Your task to perform on an android device: Search for "jbl flip 4" on target, select the first entry, and add it to the cart. Image 0: 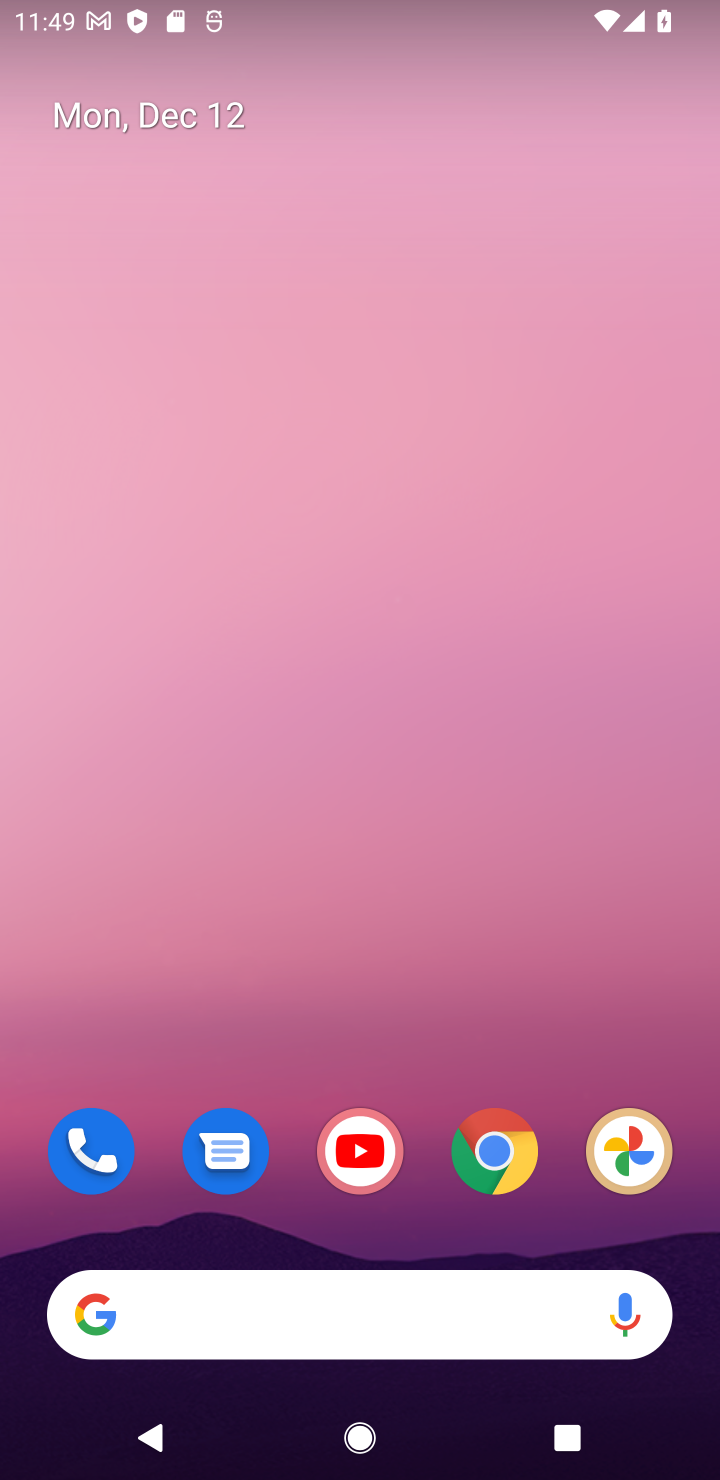
Step 0: drag from (255, 1249) to (378, 294)
Your task to perform on an android device: Search for "jbl flip 4" on target, select the first entry, and add it to the cart. Image 1: 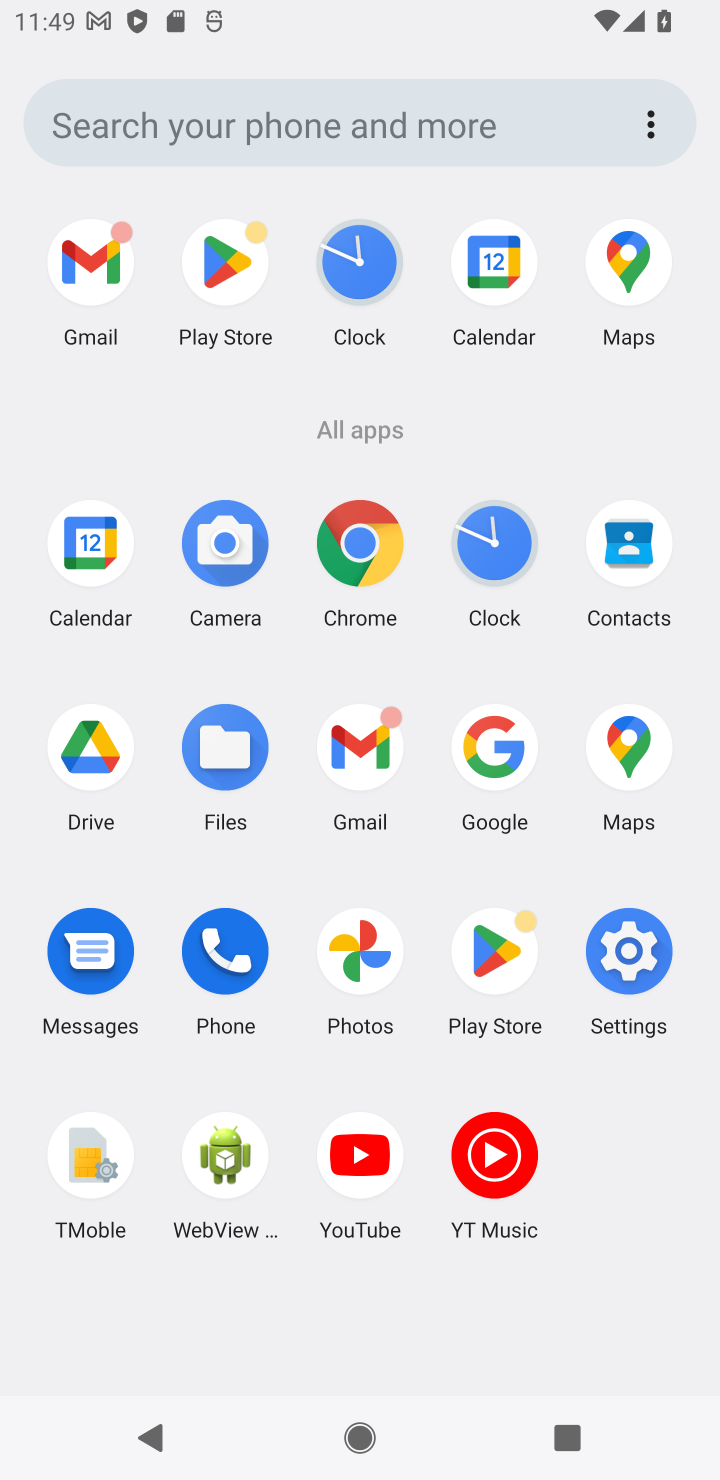
Step 1: click (496, 744)
Your task to perform on an android device: Search for "jbl flip 4" on target, select the first entry, and add it to the cart. Image 2: 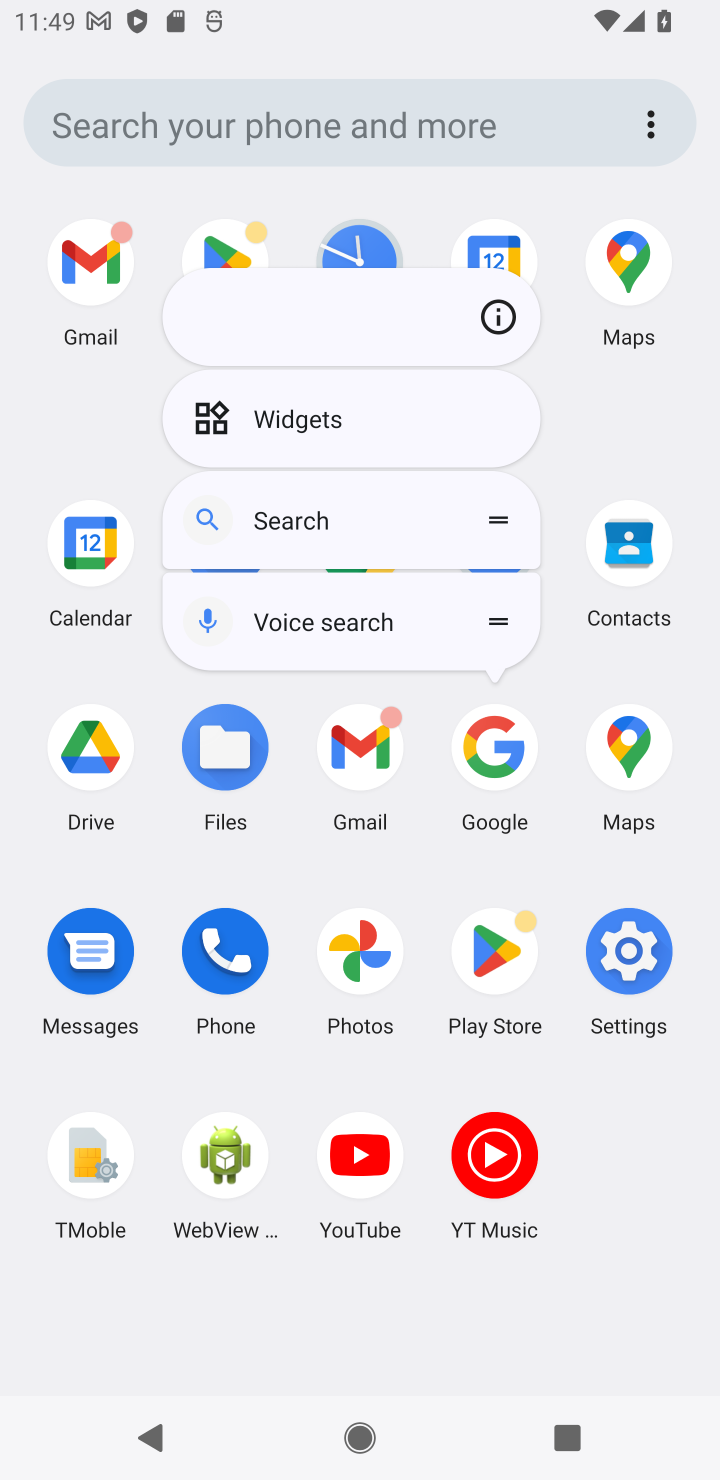
Step 2: click (471, 747)
Your task to perform on an android device: Search for "jbl flip 4" on target, select the first entry, and add it to the cart. Image 3: 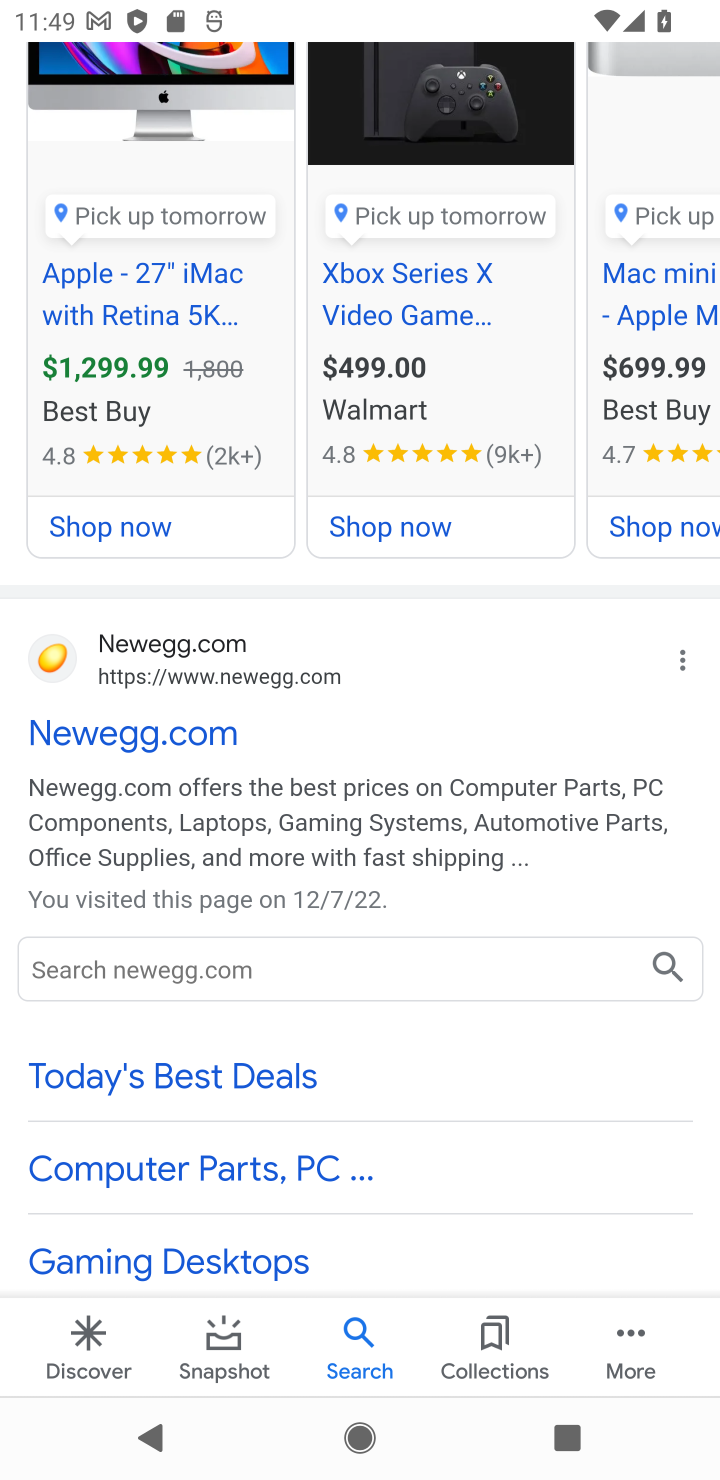
Step 3: press home button
Your task to perform on an android device: Search for "jbl flip 4" on target, select the first entry, and add it to the cart. Image 4: 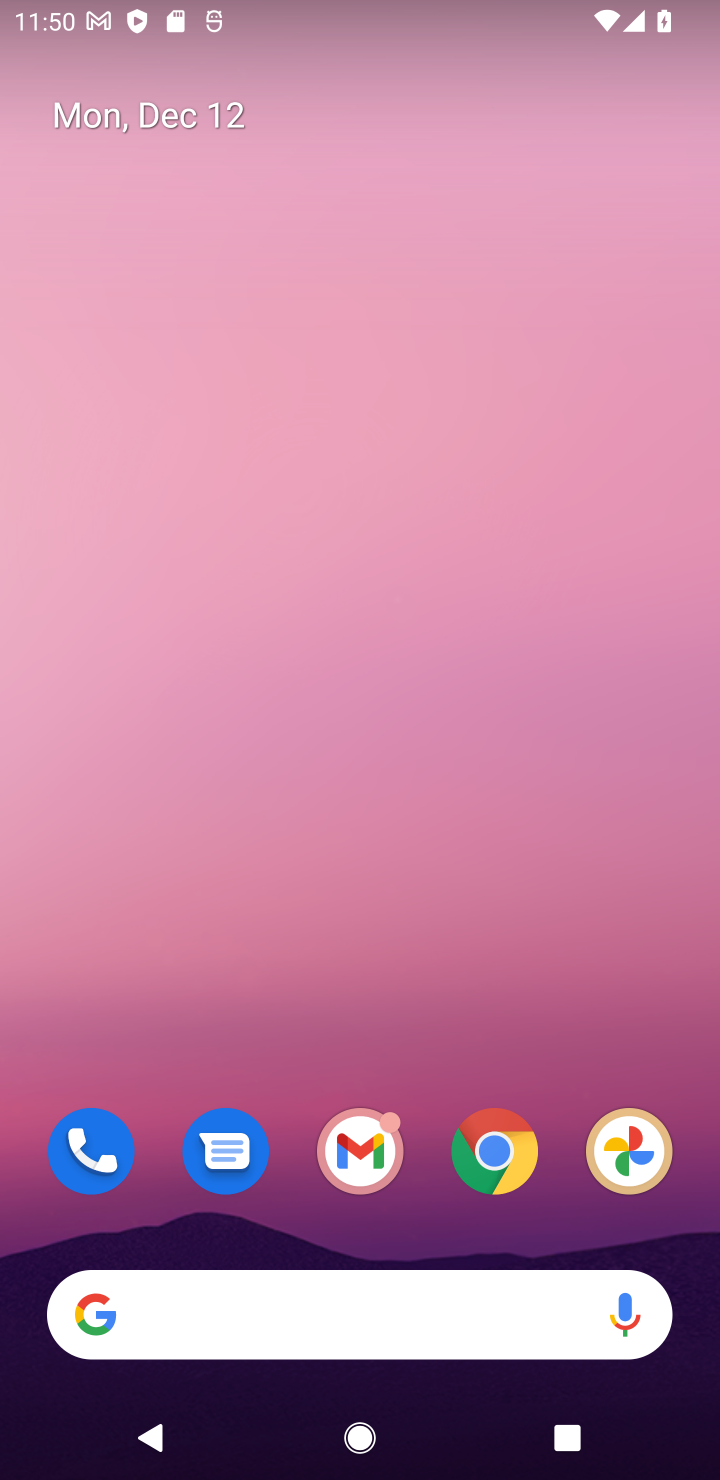
Step 4: drag from (400, 1258) to (401, 455)
Your task to perform on an android device: Search for "jbl flip 4" on target, select the first entry, and add it to the cart. Image 5: 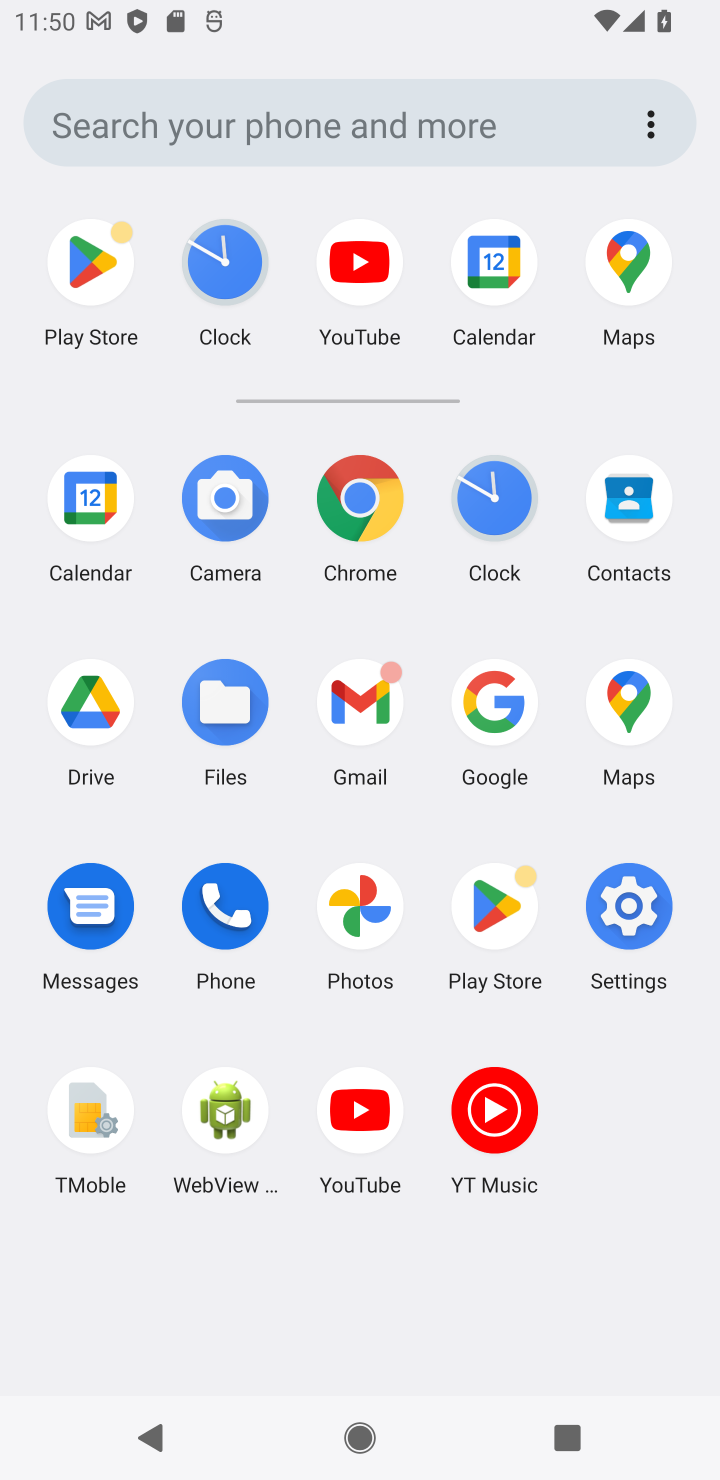
Step 5: click (493, 723)
Your task to perform on an android device: Search for "jbl flip 4" on target, select the first entry, and add it to the cart. Image 6: 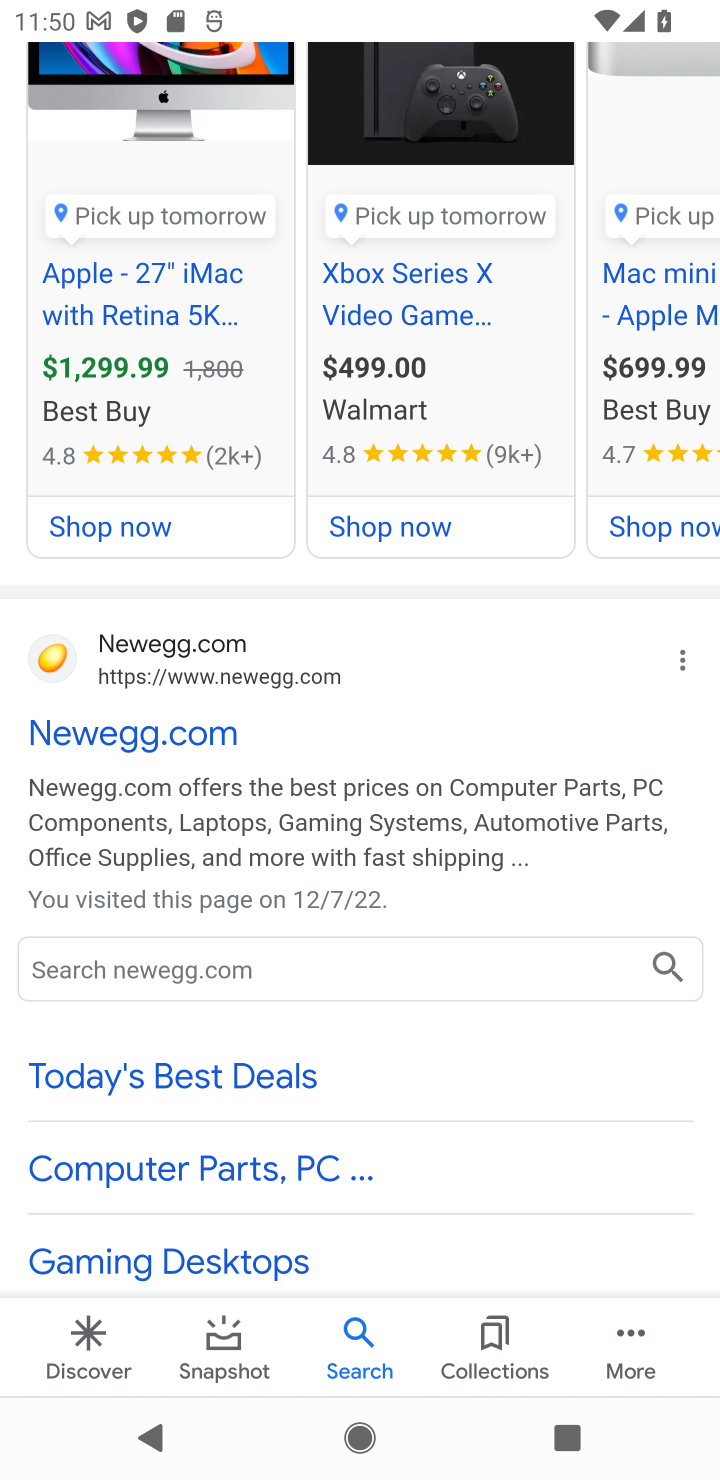
Step 6: drag from (293, 267) to (298, 1073)
Your task to perform on an android device: Search for "jbl flip 4" on target, select the first entry, and add it to the cart. Image 7: 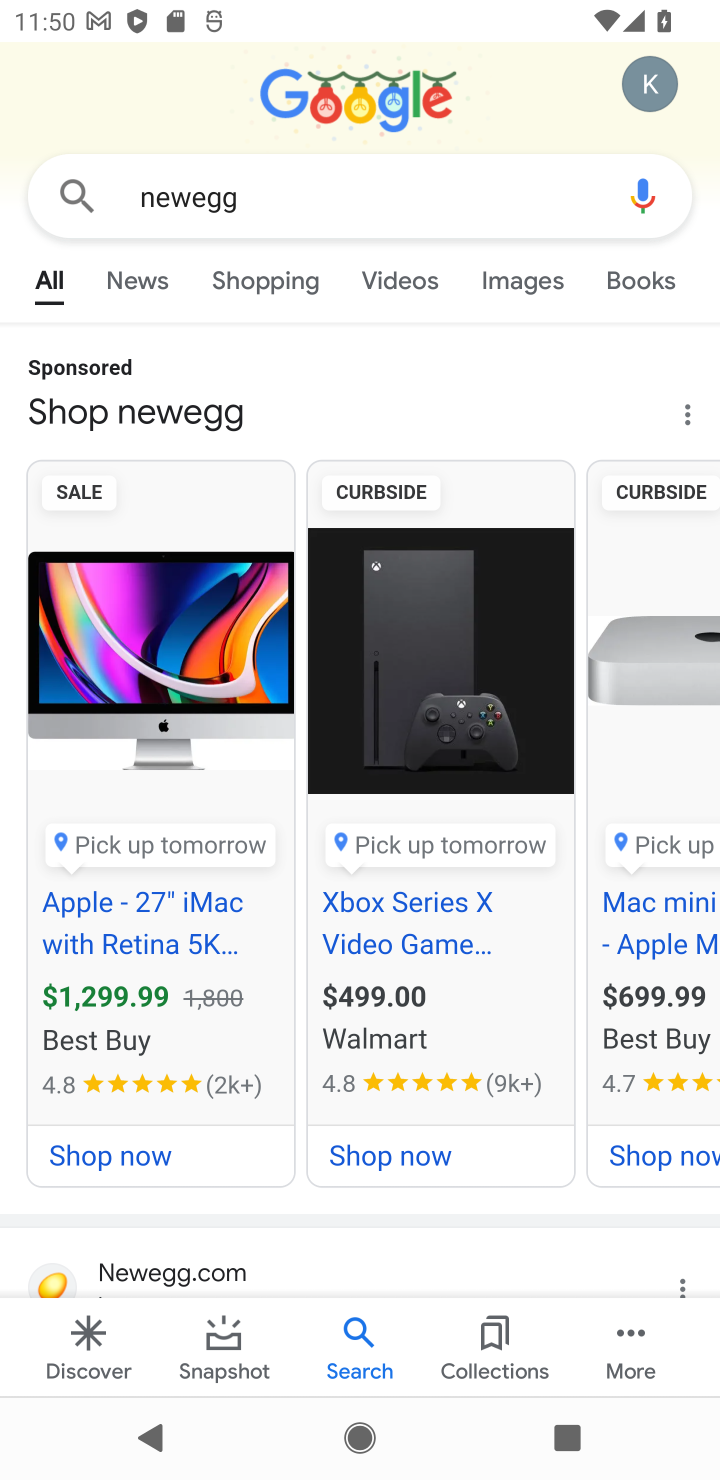
Step 7: click (222, 196)
Your task to perform on an android device: Search for "jbl flip 4" on target, select the first entry, and add it to the cart. Image 8: 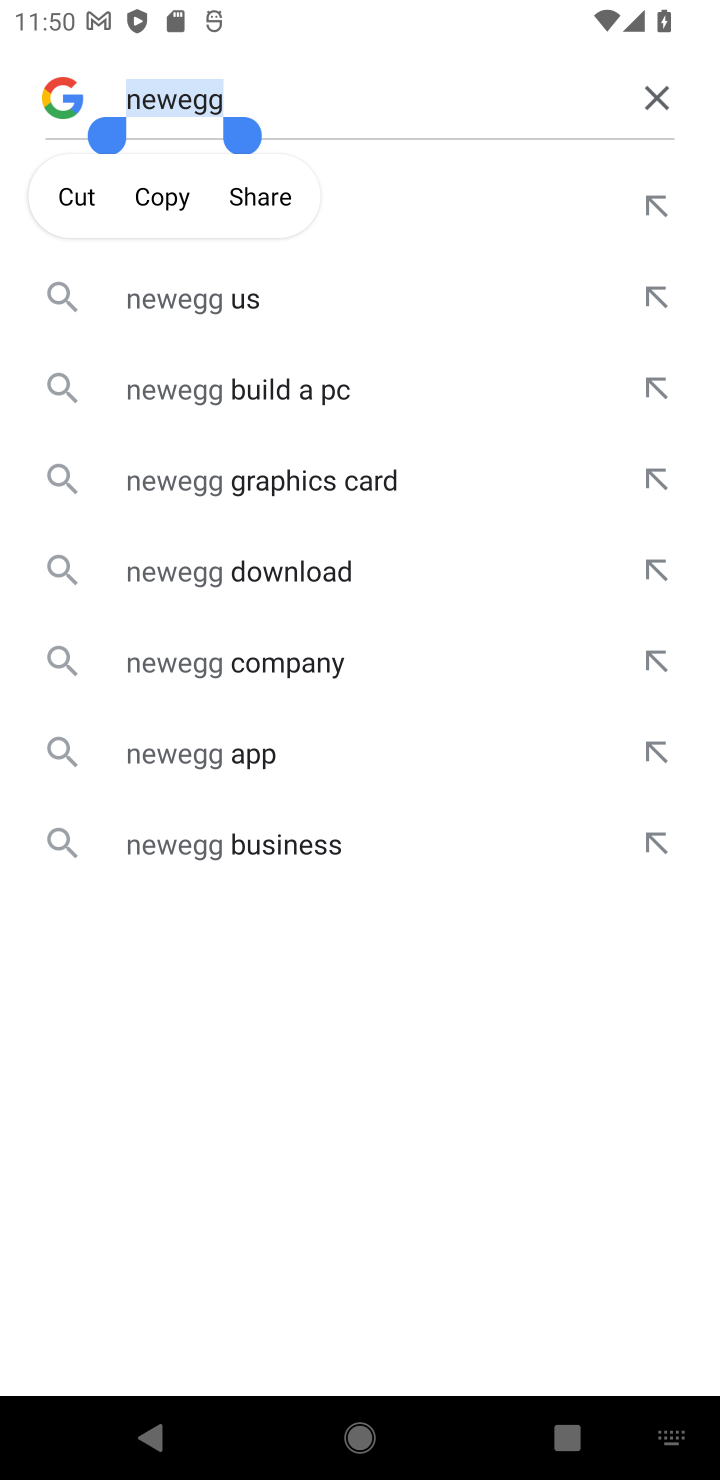
Step 8: click (661, 94)
Your task to perform on an android device: Search for "jbl flip 4" on target, select the first entry, and add it to the cart. Image 9: 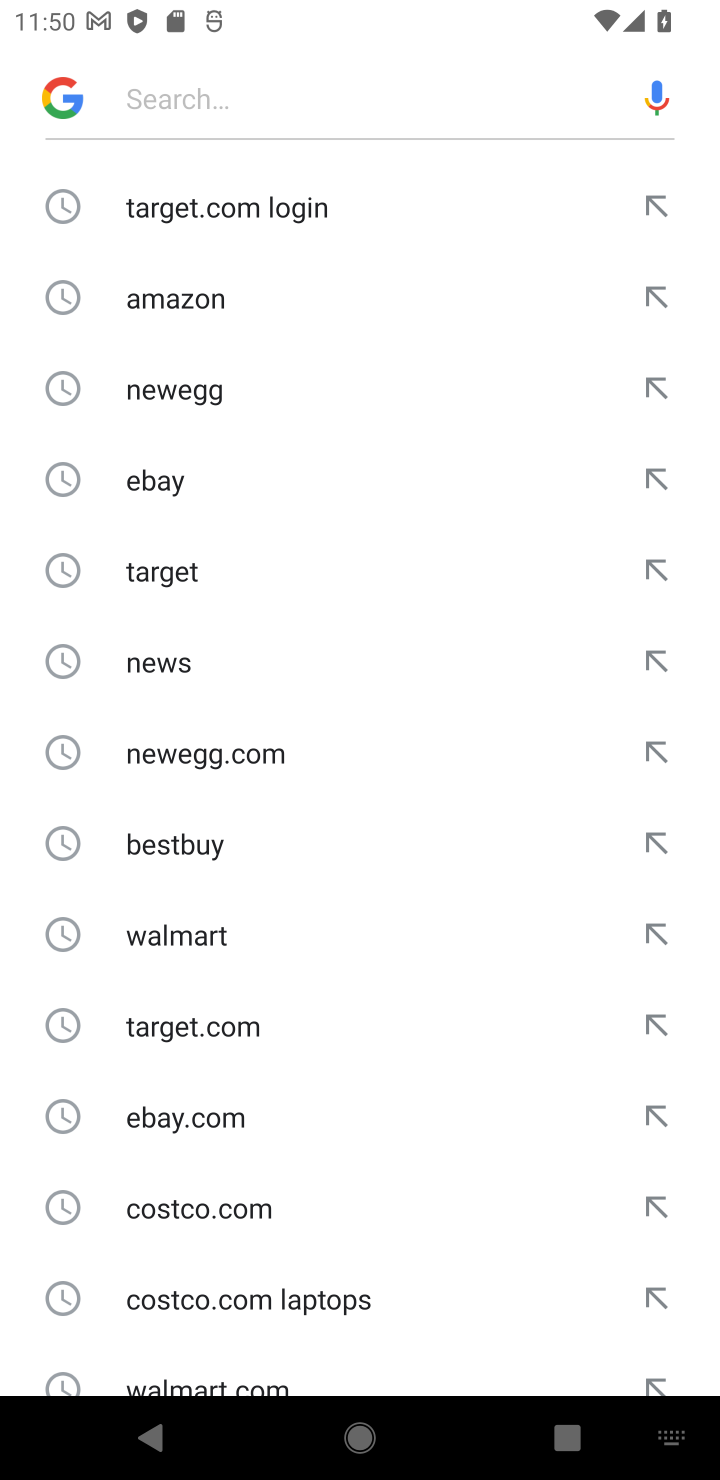
Step 9: click (197, 1028)
Your task to perform on an android device: Search for "jbl flip 4" on target, select the first entry, and add it to the cart. Image 10: 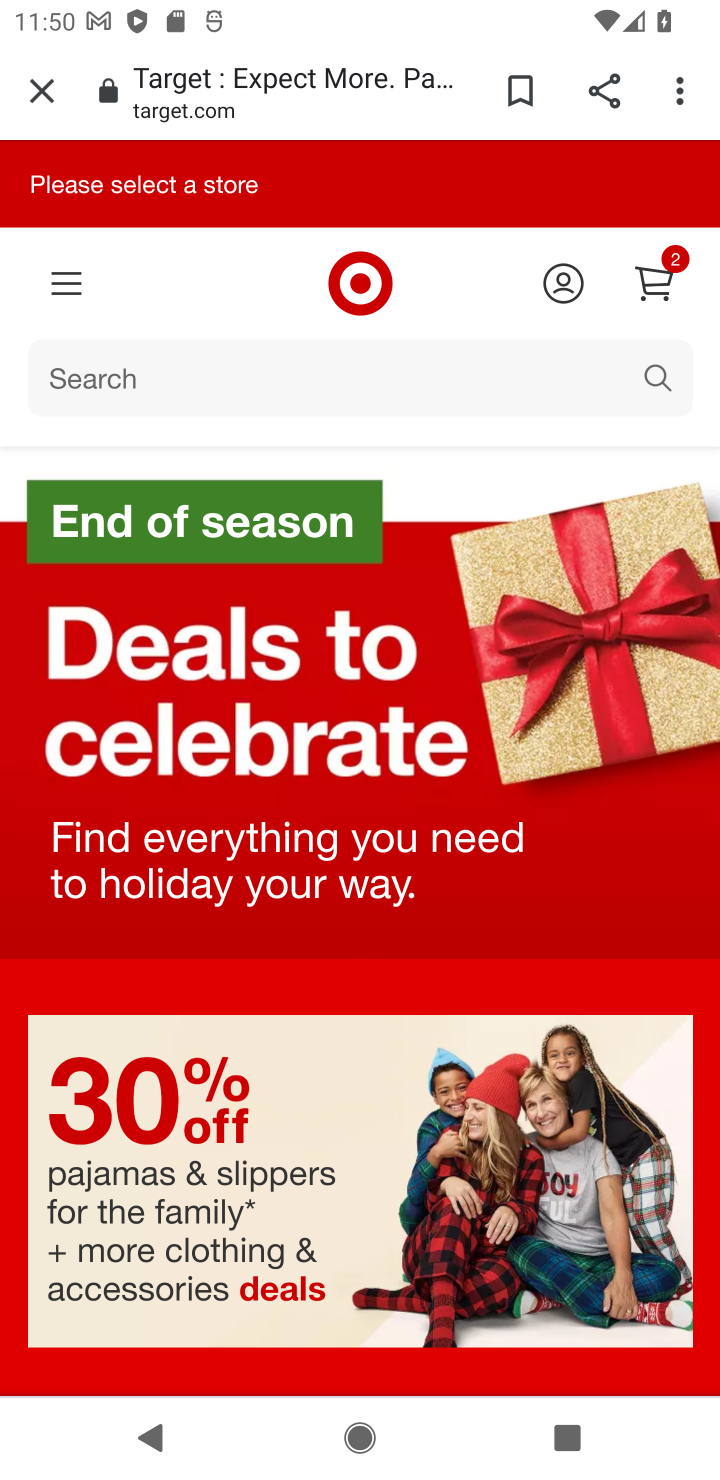
Step 10: click (206, 385)
Your task to perform on an android device: Search for "jbl flip 4" on target, select the first entry, and add it to the cart. Image 11: 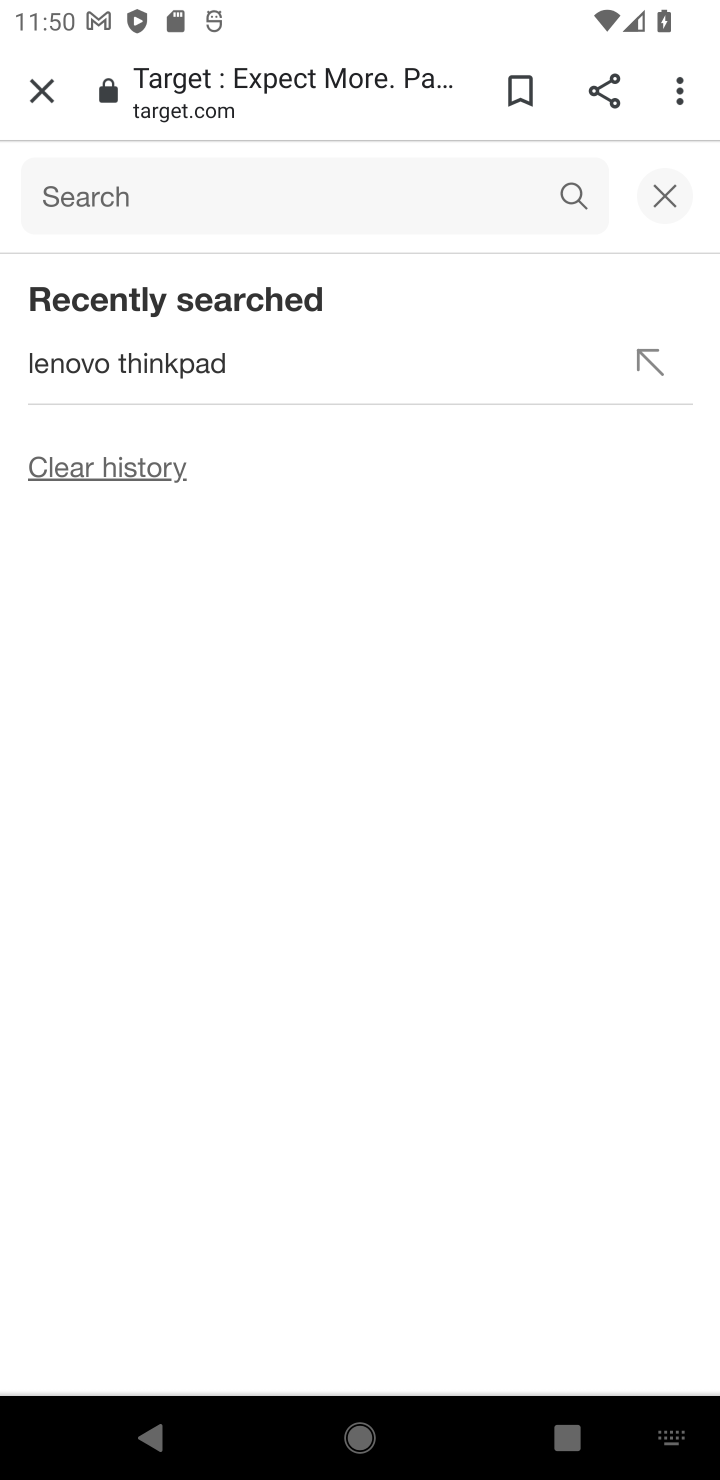
Step 11: type "jbl flip 4"
Your task to perform on an android device: Search for "jbl flip 4" on target, select the first entry, and add it to the cart. Image 12: 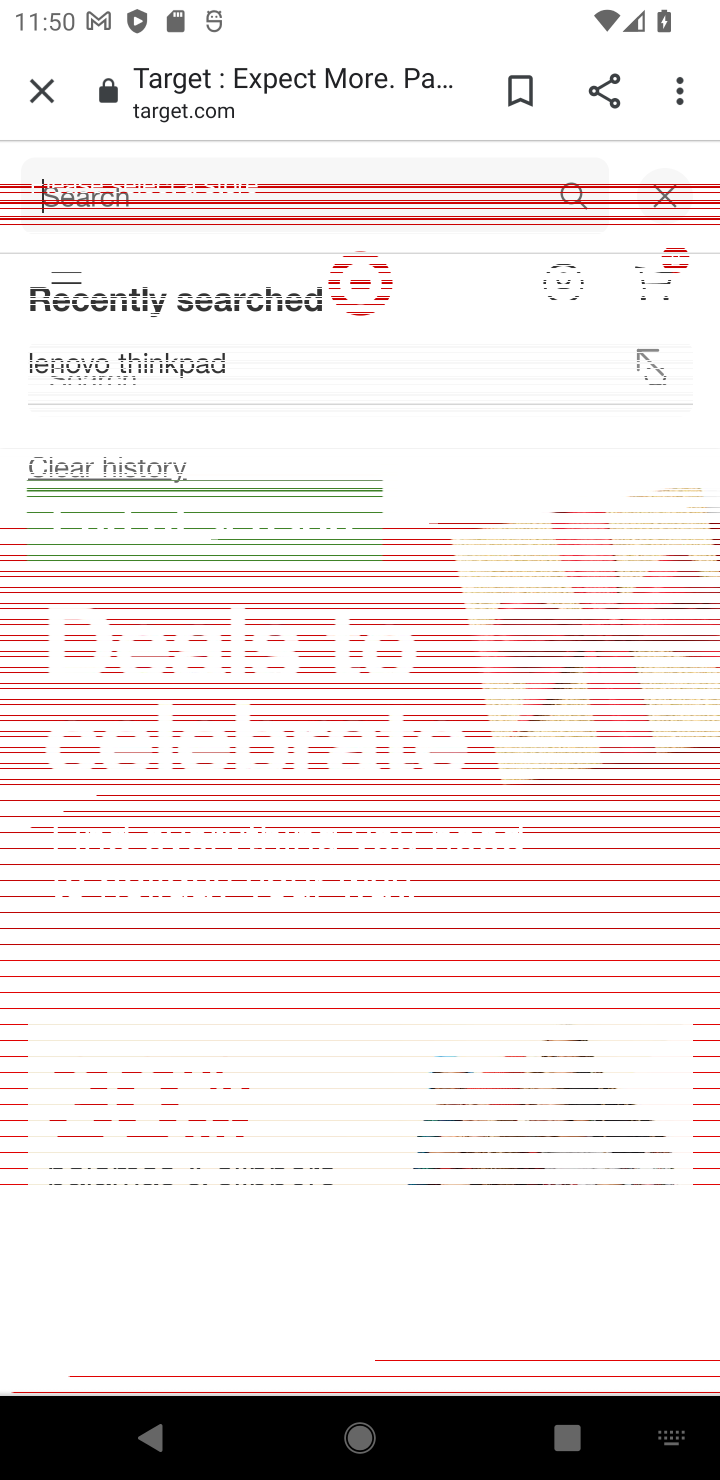
Step 12: click (573, 195)
Your task to perform on an android device: Search for "jbl flip 4" on target, select the first entry, and add it to the cart. Image 13: 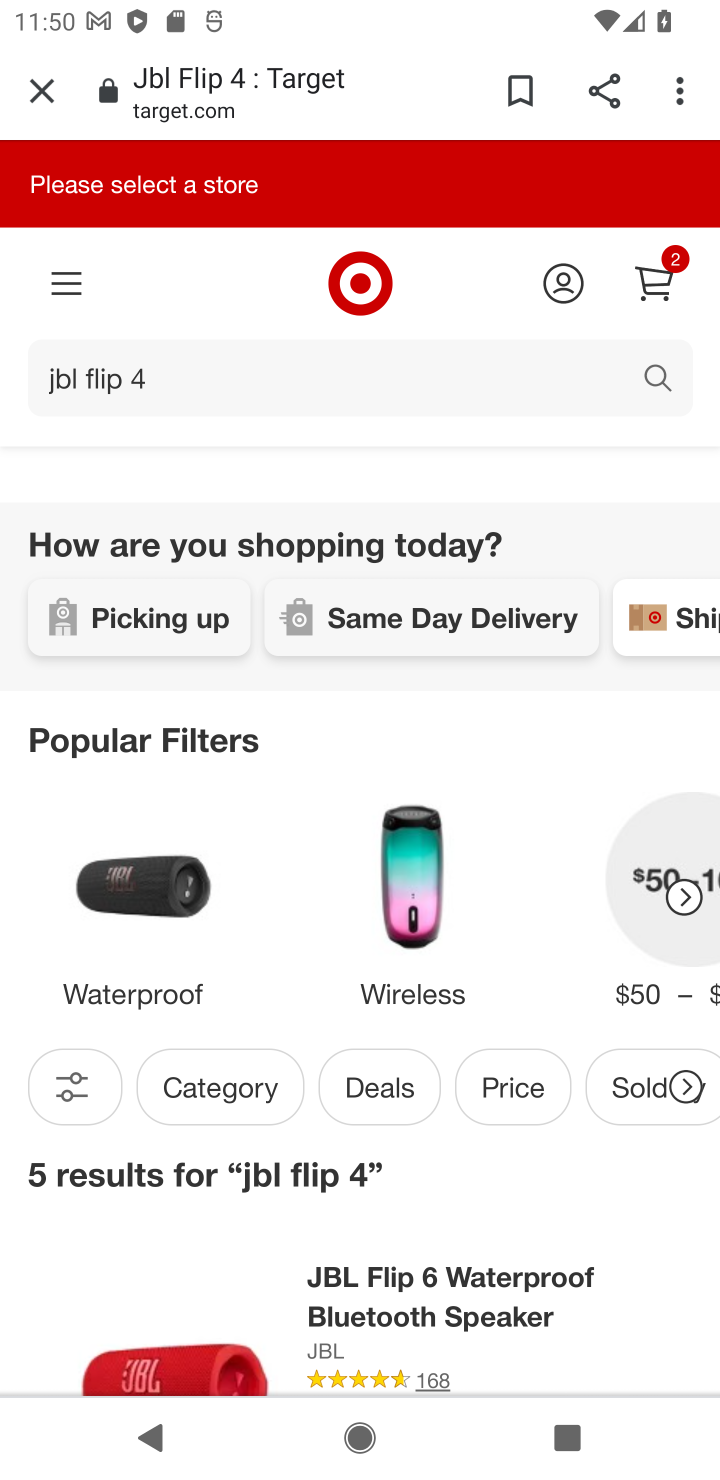
Step 13: drag from (370, 1188) to (399, 576)
Your task to perform on an android device: Search for "jbl flip 4" on target, select the first entry, and add it to the cart. Image 14: 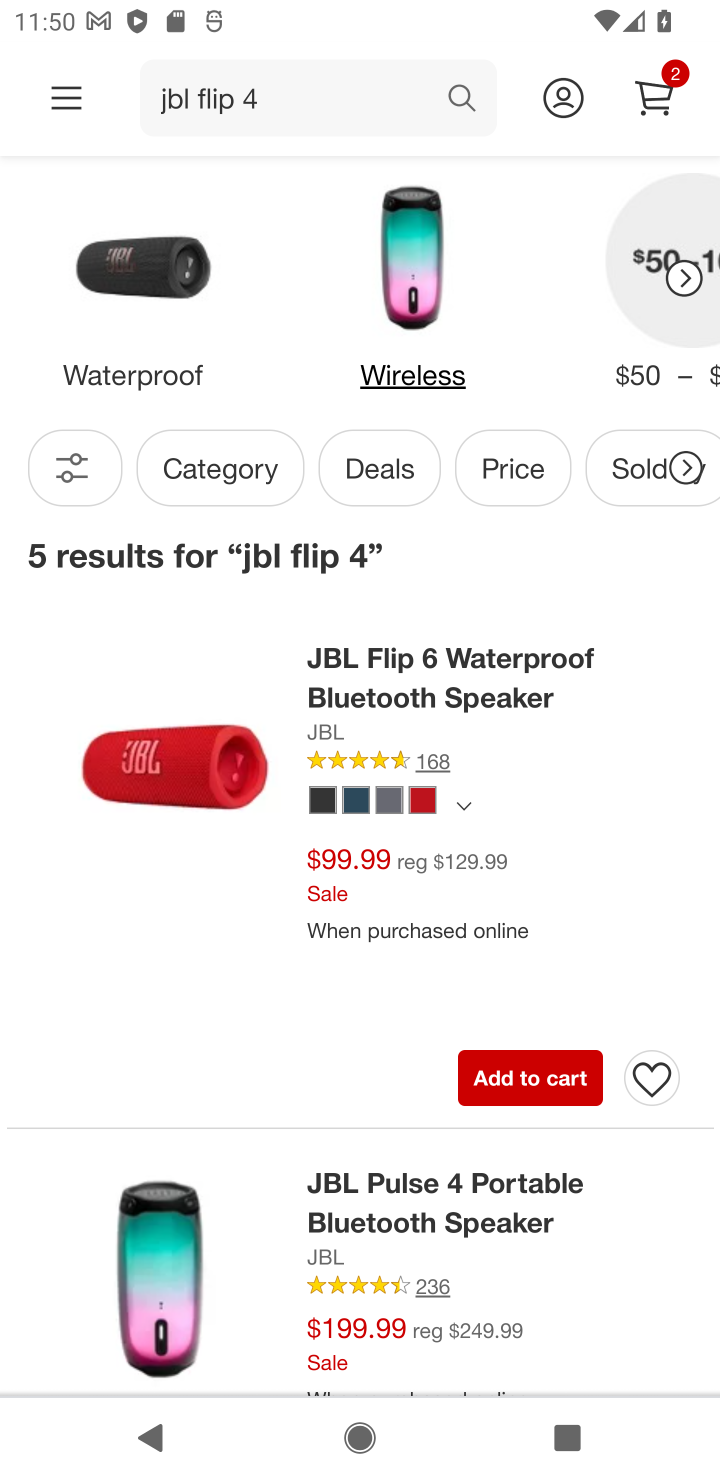
Step 14: click (534, 1090)
Your task to perform on an android device: Search for "jbl flip 4" on target, select the first entry, and add it to the cart. Image 15: 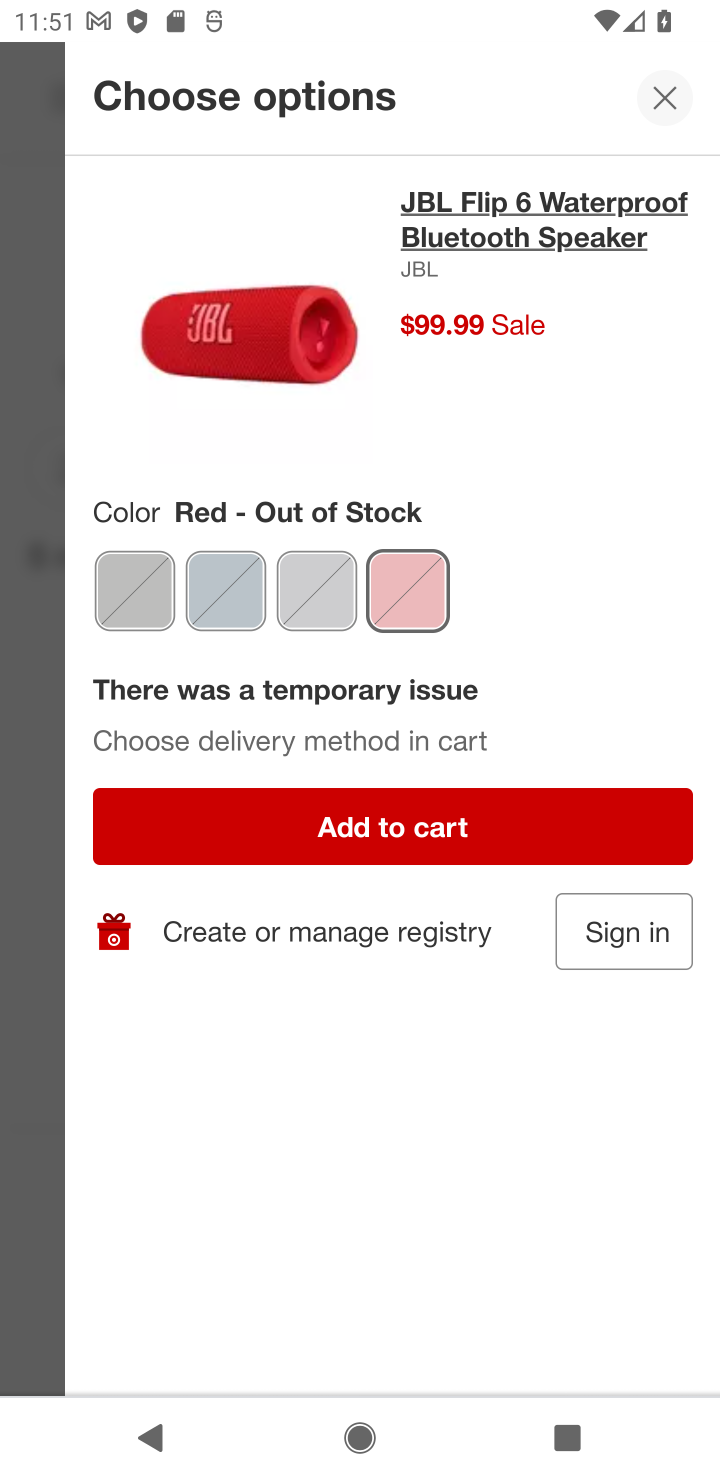
Step 15: click (383, 821)
Your task to perform on an android device: Search for "jbl flip 4" on target, select the first entry, and add it to the cart. Image 16: 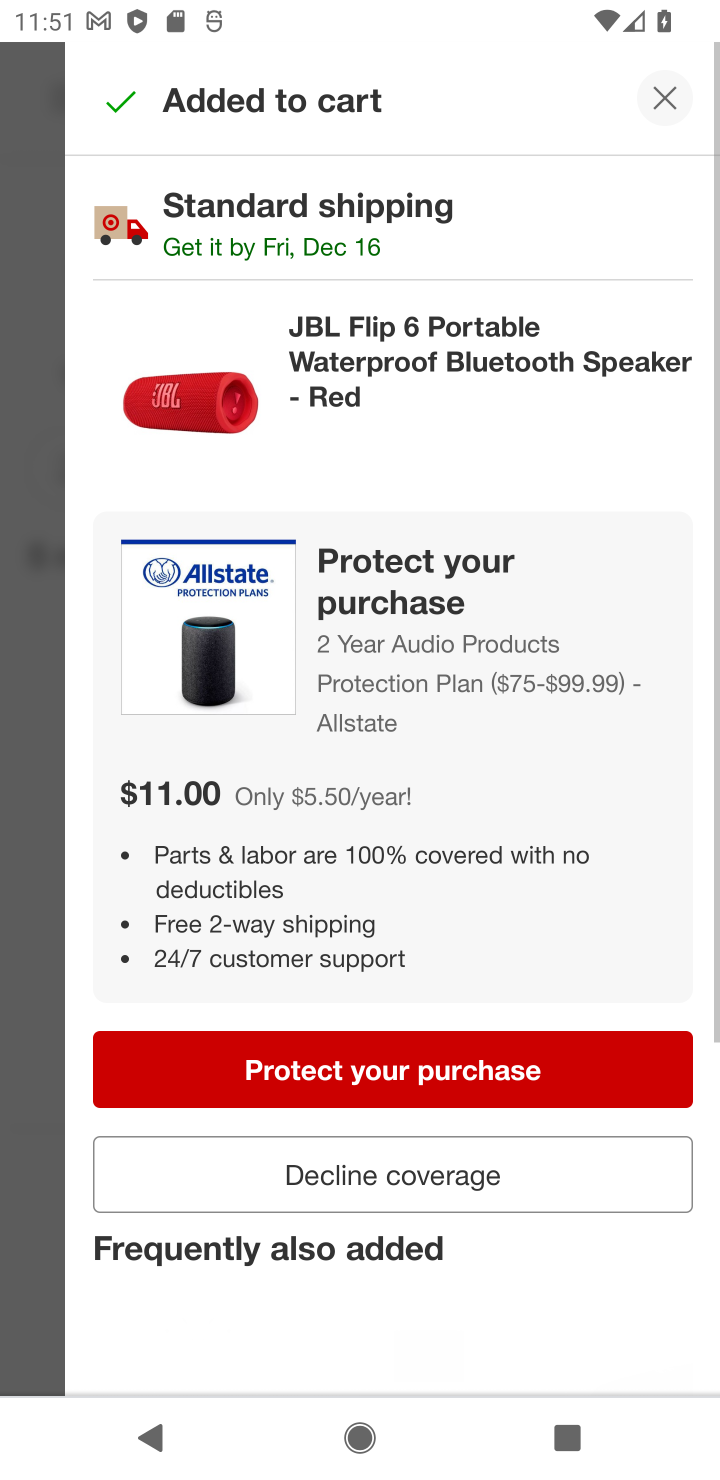
Step 16: click (664, 101)
Your task to perform on an android device: Search for "jbl flip 4" on target, select the first entry, and add it to the cart. Image 17: 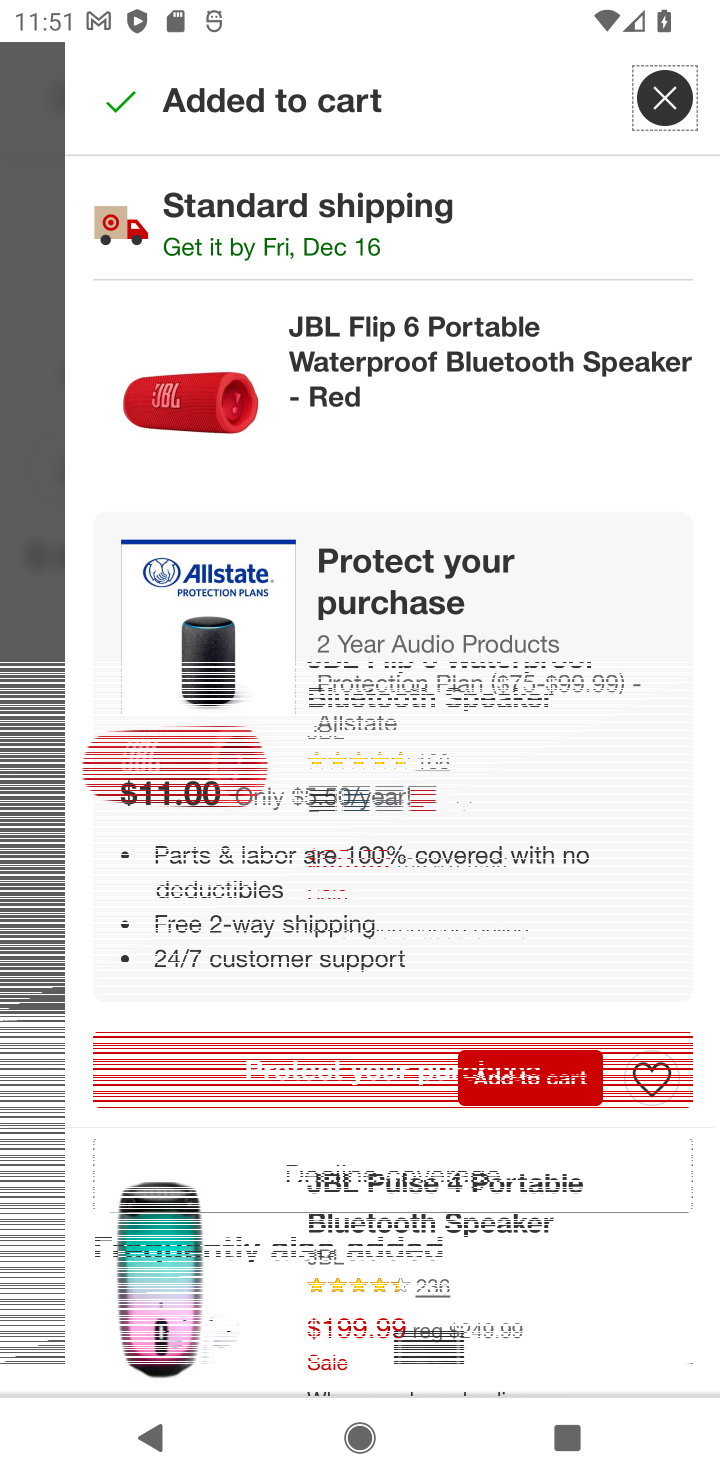
Step 17: task complete